Your task to perform on an android device: add a contact in the contacts app Image 0: 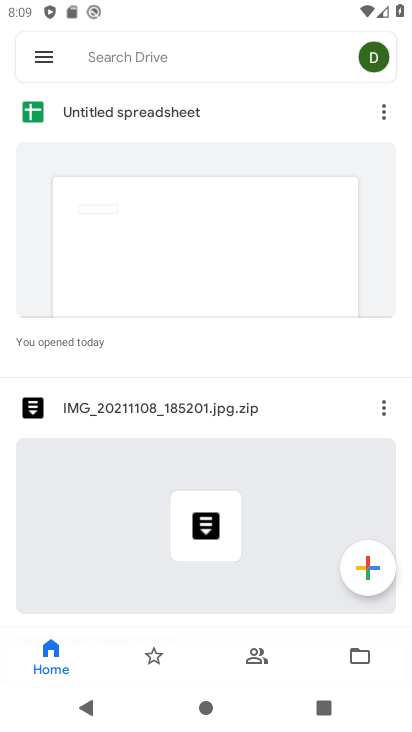
Step 0: press home button
Your task to perform on an android device: add a contact in the contacts app Image 1: 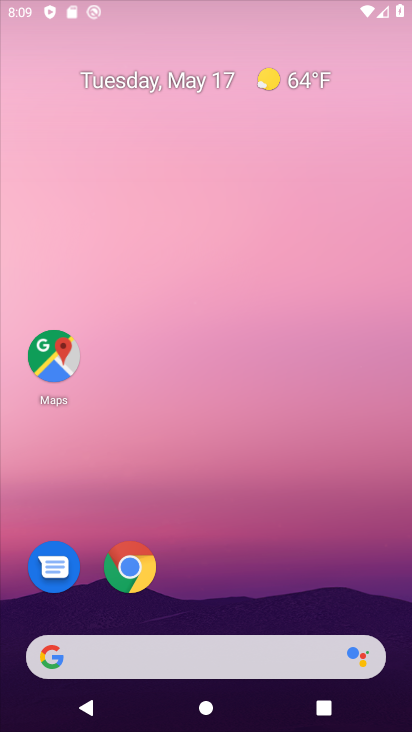
Step 1: drag from (374, 607) to (165, 40)
Your task to perform on an android device: add a contact in the contacts app Image 2: 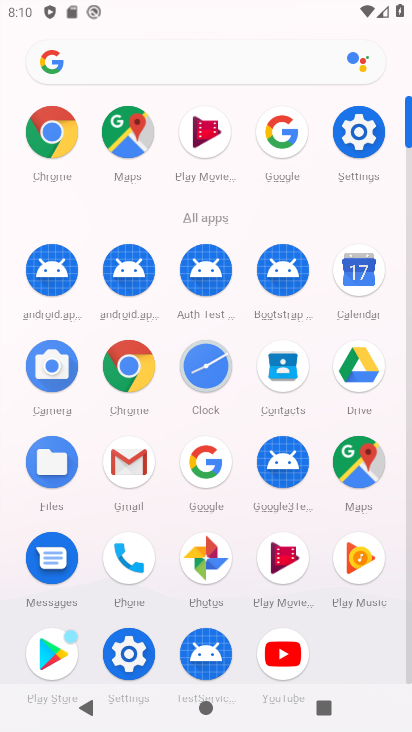
Step 2: click (277, 372)
Your task to perform on an android device: add a contact in the contacts app Image 3: 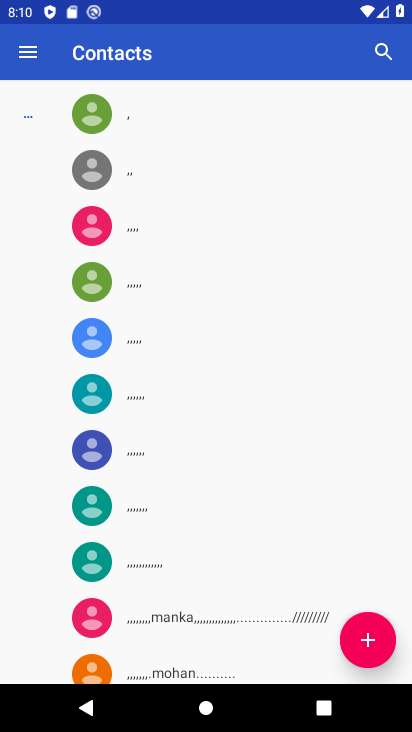
Step 3: click (374, 626)
Your task to perform on an android device: add a contact in the contacts app Image 4: 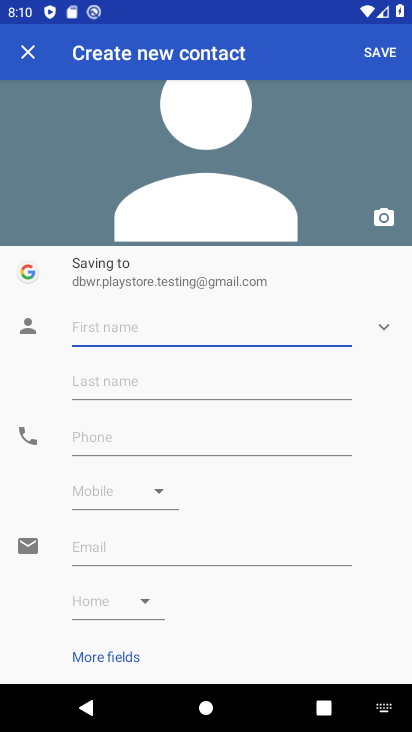
Step 4: type "tanya"
Your task to perform on an android device: add a contact in the contacts app Image 5: 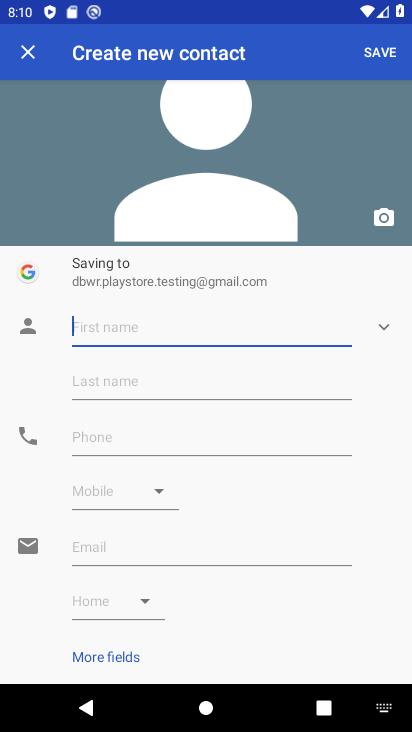
Step 5: click (389, 61)
Your task to perform on an android device: add a contact in the contacts app Image 6: 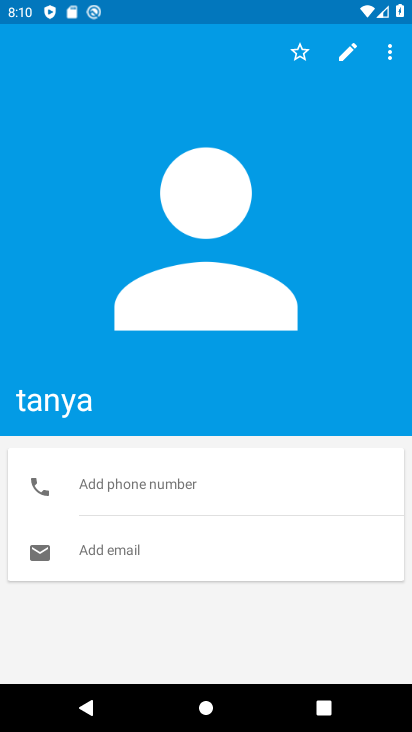
Step 6: task complete